Your task to perform on an android device: turn off wifi Image 0: 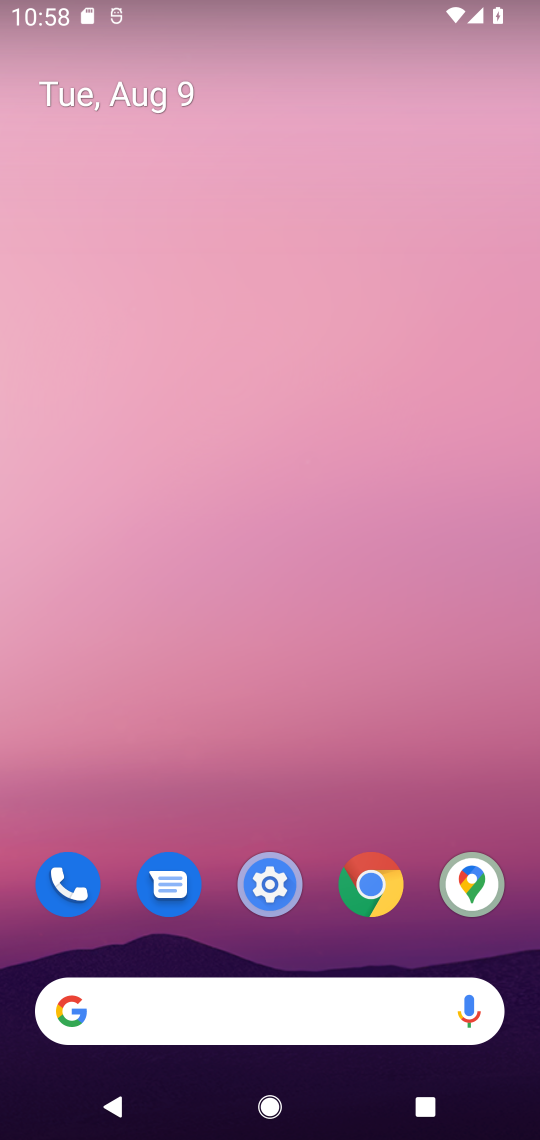
Step 0: drag from (322, 917) to (219, 171)
Your task to perform on an android device: turn off wifi Image 1: 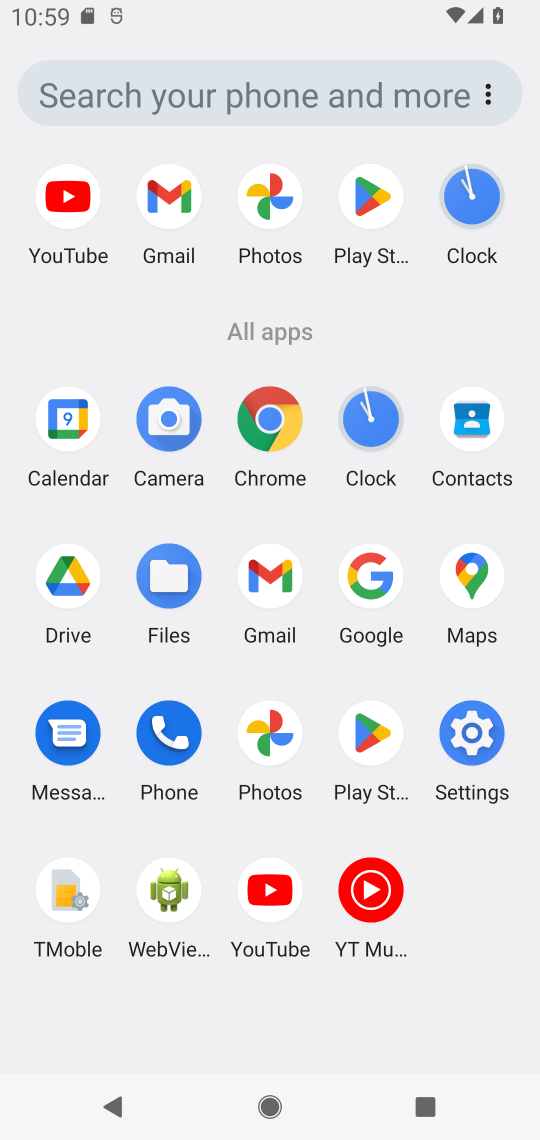
Step 1: click (458, 726)
Your task to perform on an android device: turn off wifi Image 2: 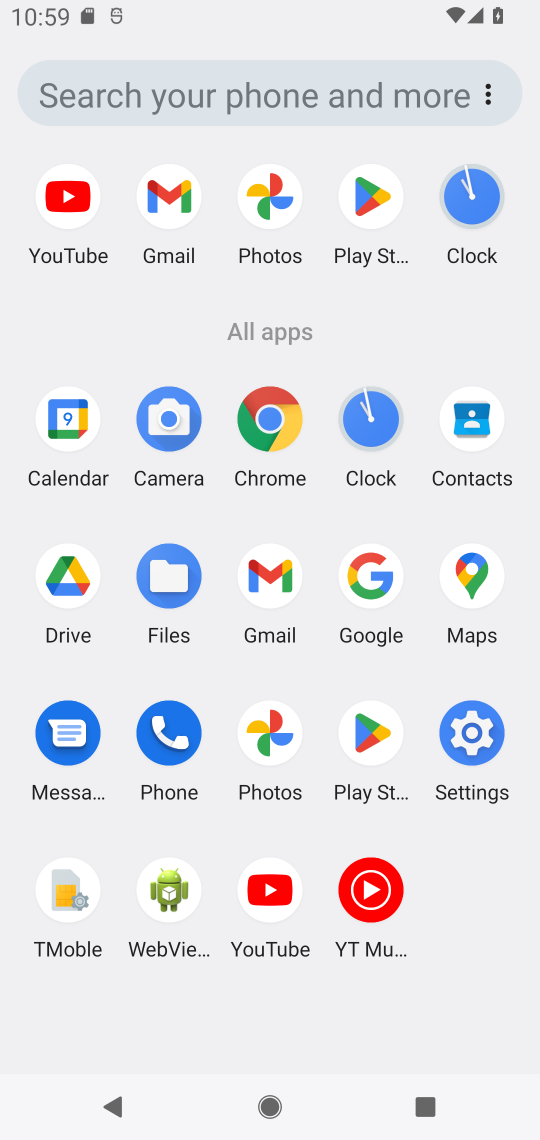
Step 2: click (459, 726)
Your task to perform on an android device: turn off wifi Image 3: 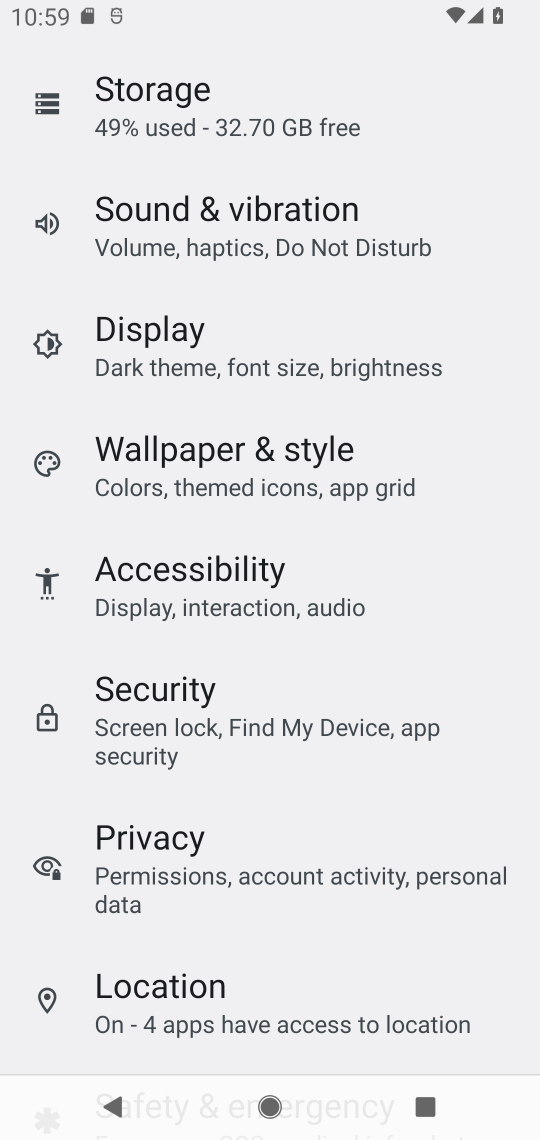
Step 3: drag from (215, 132) to (293, 922)
Your task to perform on an android device: turn off wifi Image 4: 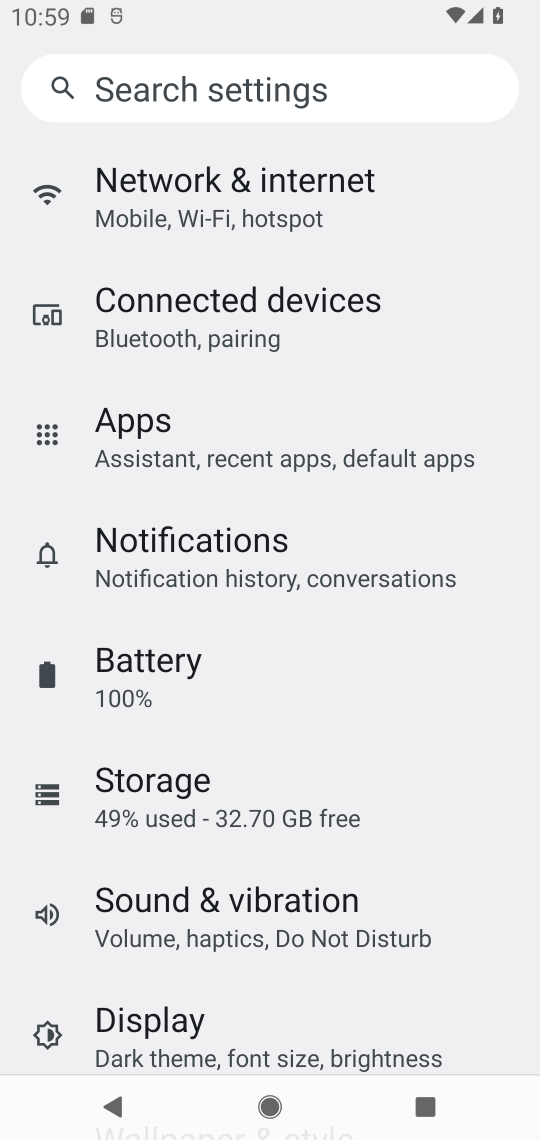
Step 4: click (176, 183)
Your task to perform on an android device: turn off wifi Image 5: 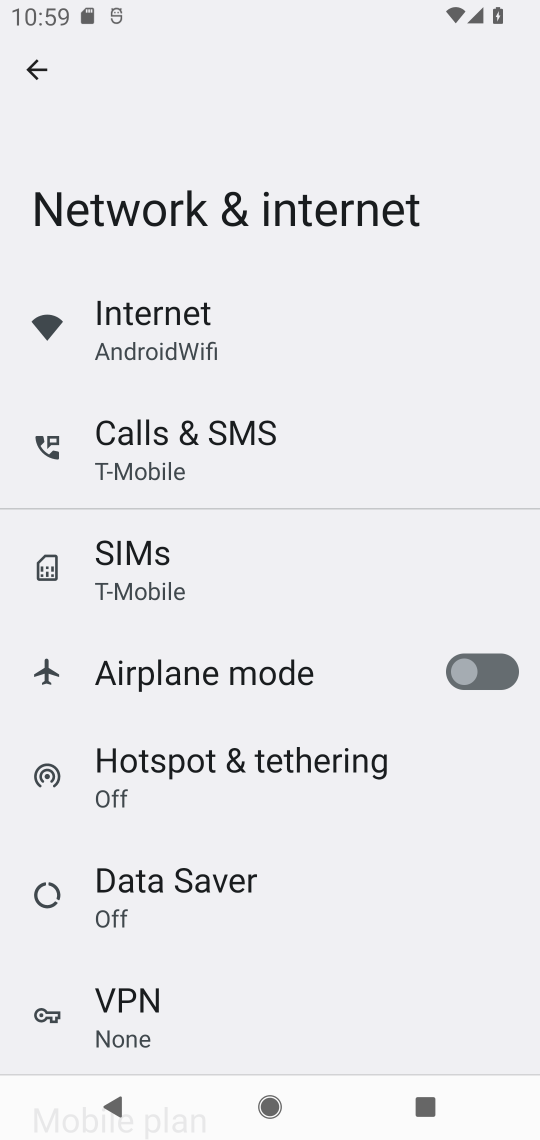
Step 5: click (145, 325)
Your task to perform on an android device: turn off wifi Image 6: 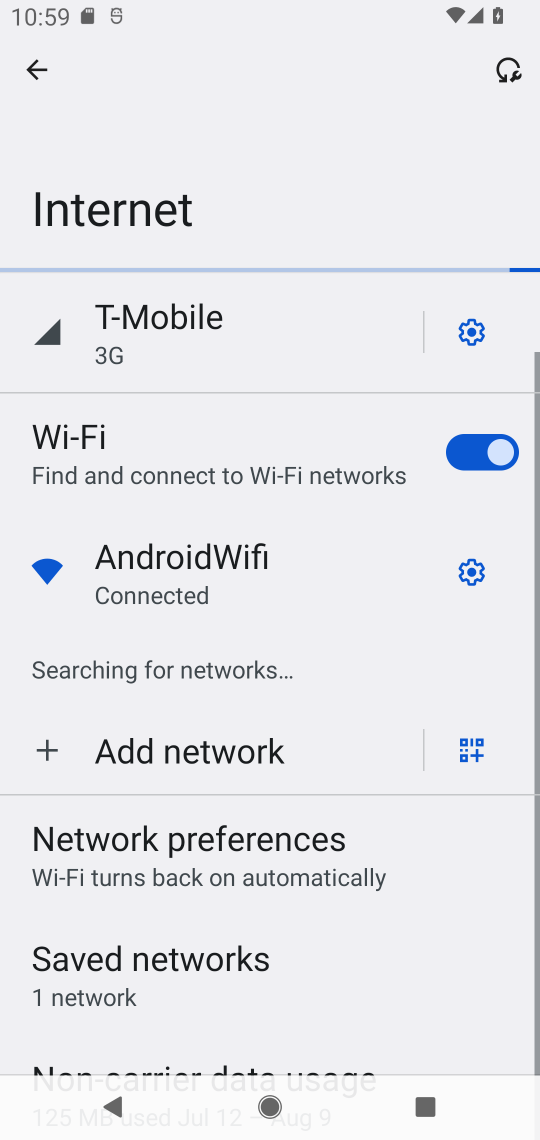
Step 6: click (490, 451)
Your task to perform on an android device: turn off wifi Image 7: 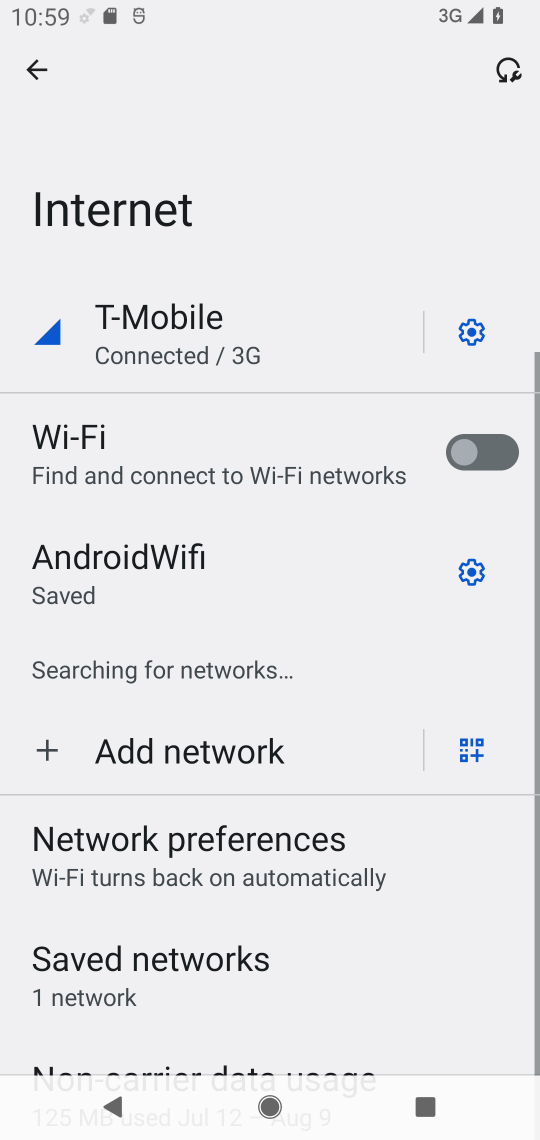
Step 7: task complete